Your task to perform on an android device: find photos in the google photos app Image 0: 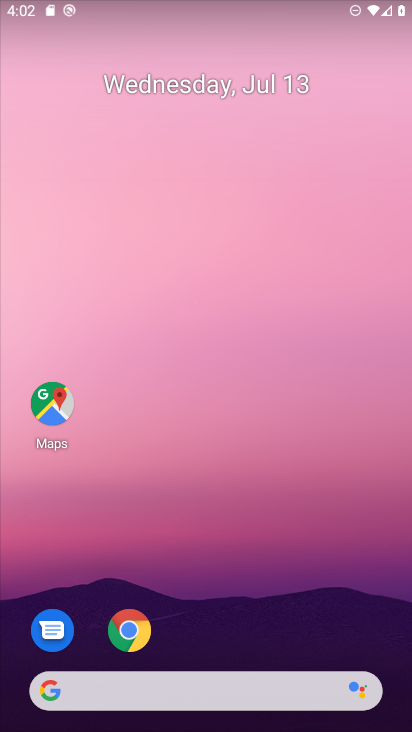
Step 0: press home button
Your task to perform on an android device: find photos in the google photos app Image 1: 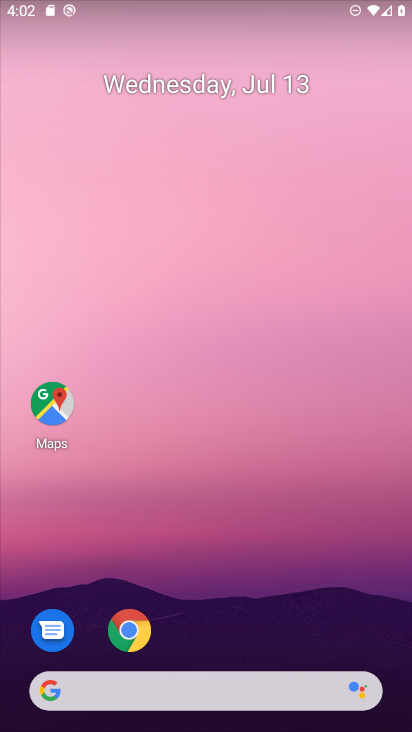
Step 1: drag from (216, 607) to (228, 320)
Your task to perform on an android device: find photos in the google photos app Image 2: 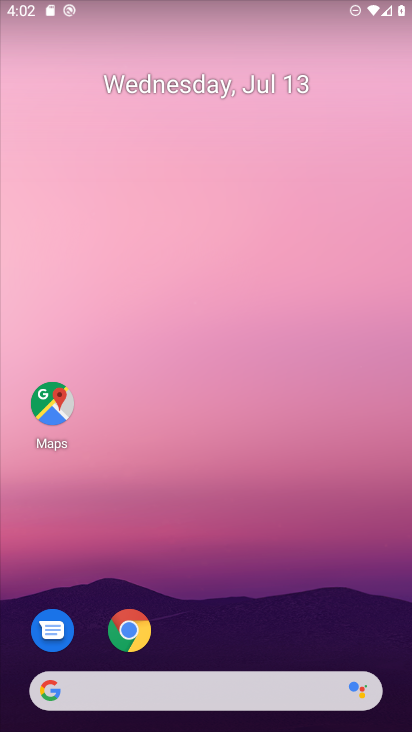
Step 2: drag from (212, 620) to (281, 7)
Your task to perform on an android device: find photos in the google photos app Image 3: 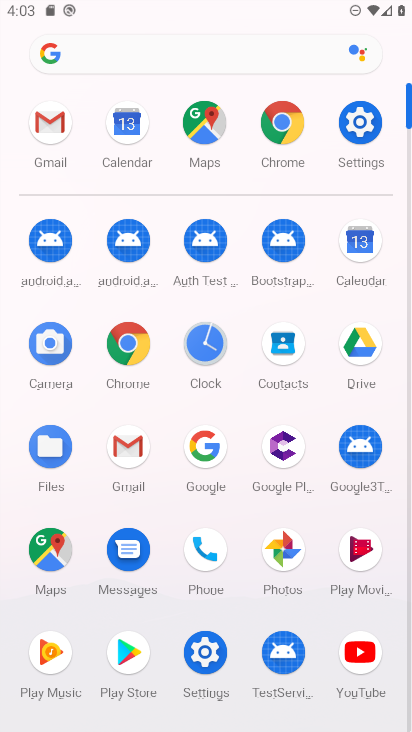
Step 3: click (287, 551)
Your task to perform on an android device: find photos in the google photos app Image 4: 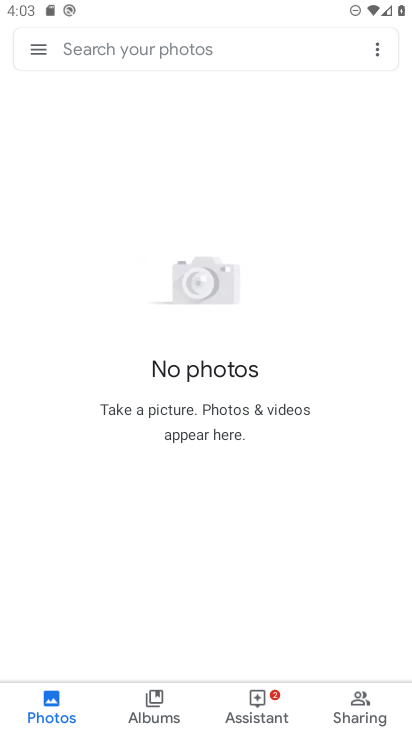
Step 4: task complete